Your task to perform on an android device: turn on wifi Image 0: 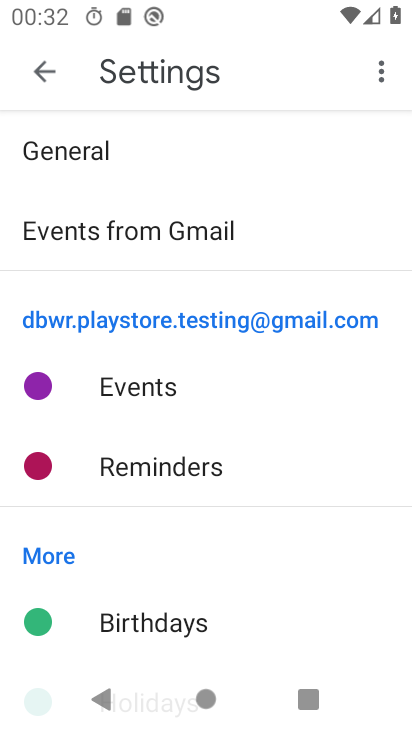
Step 0: press home button
Your task to perform on an android device: turn on wifi Image 1: 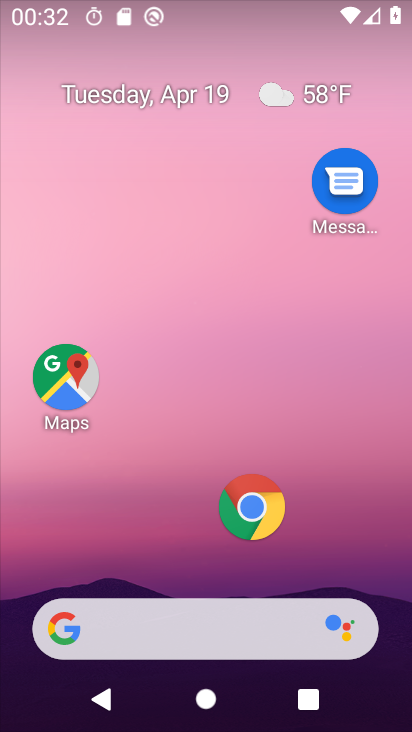
Step 1: drag from (179, 577) to (348, 100)
Your task to perform on an android device: turn on wifi Image 2: 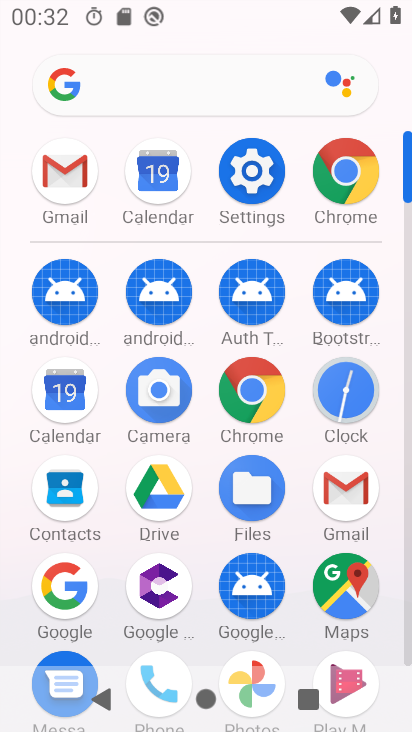
Step 2: click (259, 172)
Your task to perform on an android device: turn on wifi Image 3: 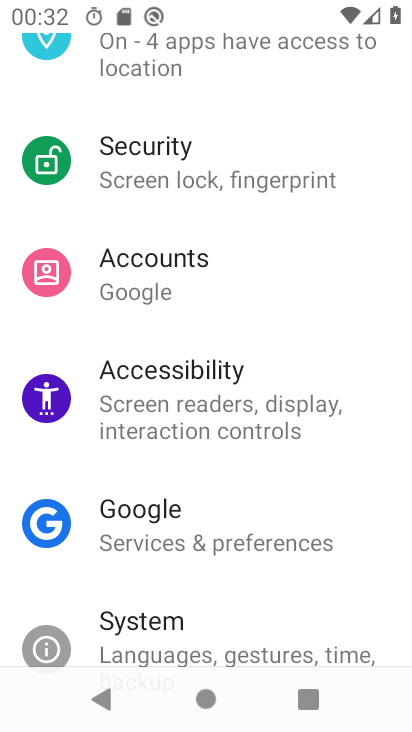
Step 3: drag from (241, 157) to (189, 544)
Your task to perform on an android device: turn on wifi Image 4: 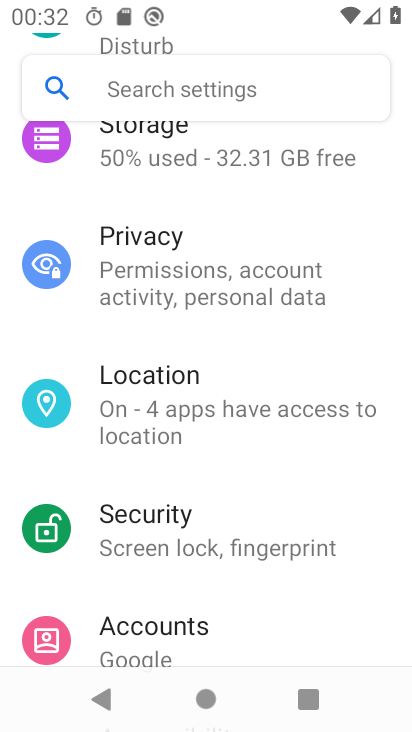
Step 4: drag from (225, 224) to (181, 588)
Your task to perform on an android device: turn on wifi Image 5: 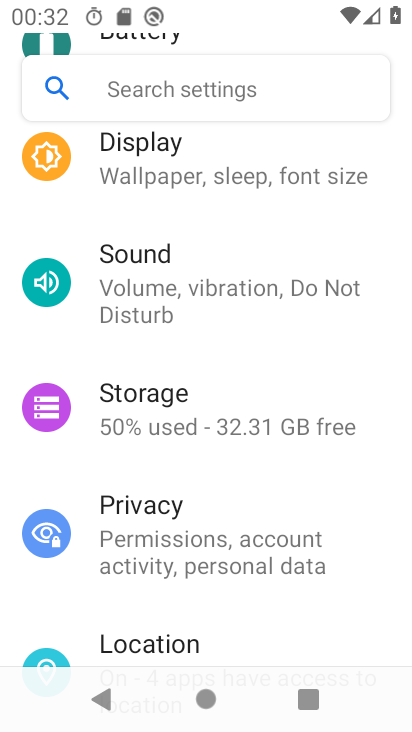
Step 5: drag from (202, 349) to (185, 676)
Your task to perform on an android device: turn on wifi Image 6: 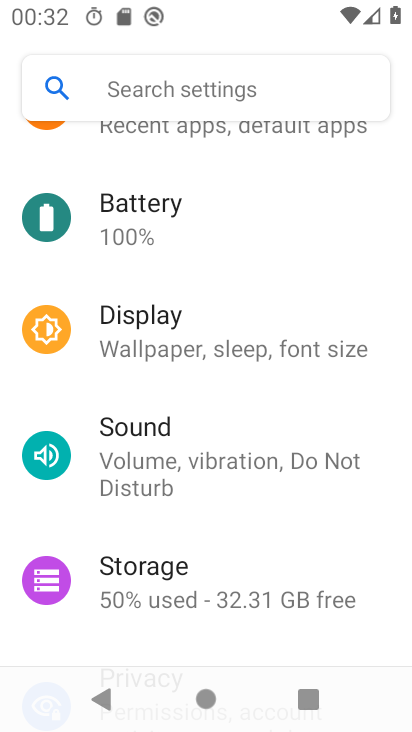
Step 6: drag from (224, 233) to (204, 586)
Your task to perform on an android device: turn on wifi Image 7: 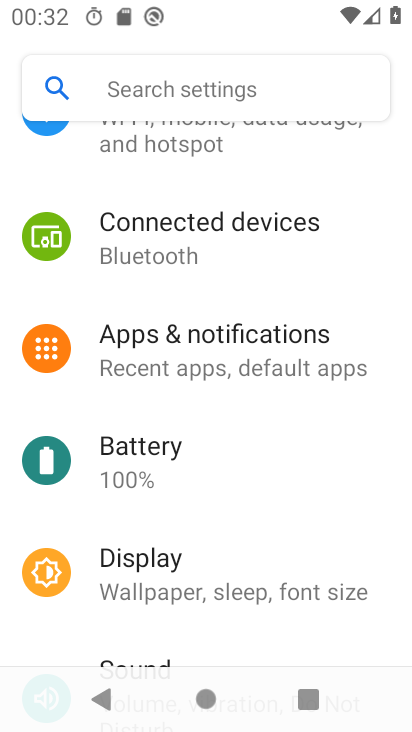
Step 7: drag from (249, 249) to (216, 690)
Your task to perform on an android device: turn on wifi Image 8: 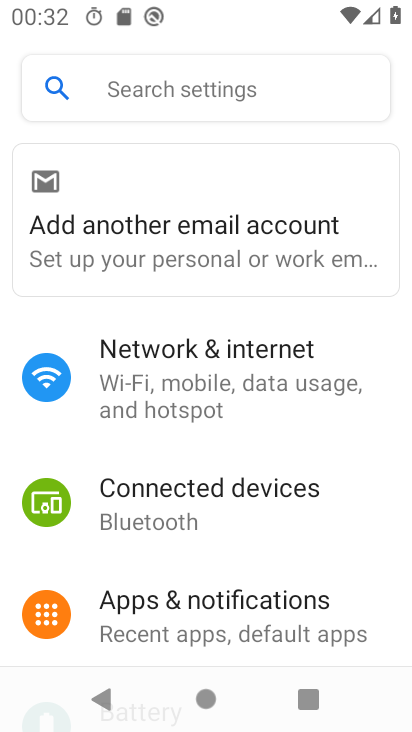
Step 8: click (190, 387)
Your task to perform on an android device: turn on wifi Image 9: 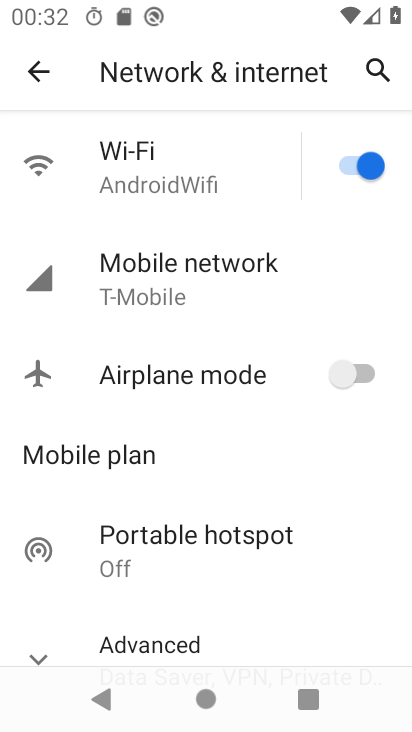
Step 9: task complete